Your task to perform on an android device: Go to notification settings Image 0: 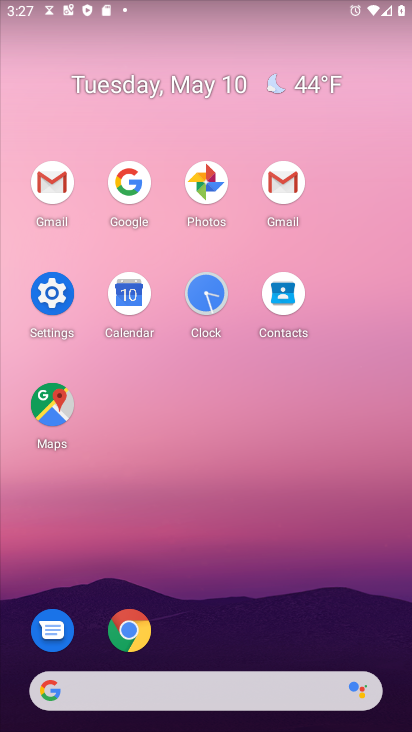
Step 0: click (52, 287)
Your task to perform on an android device: Go to notification settings Image 1: 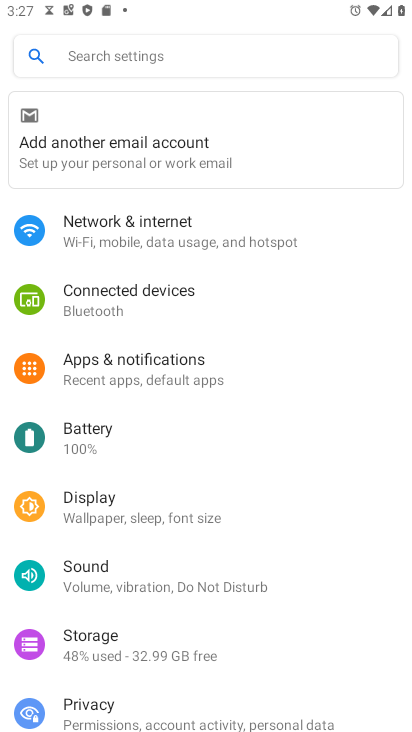
Step 1: click (216, 364)
Your task to perform on an android device: Go to notification settings Image 2: 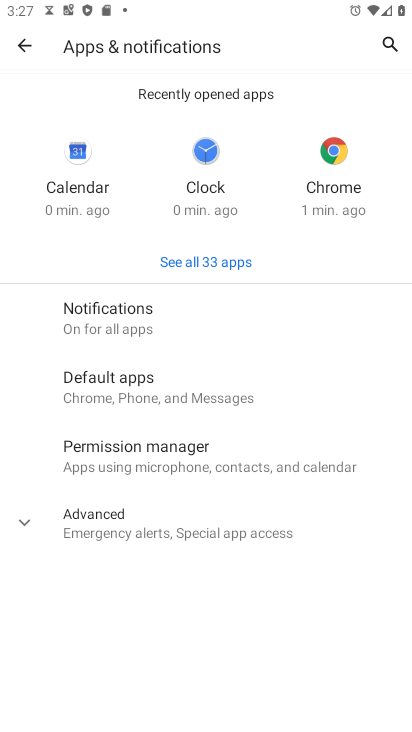
Step 2: task complete